Your task to perform on an android device: clear all cookies in the chrome app Image 0: 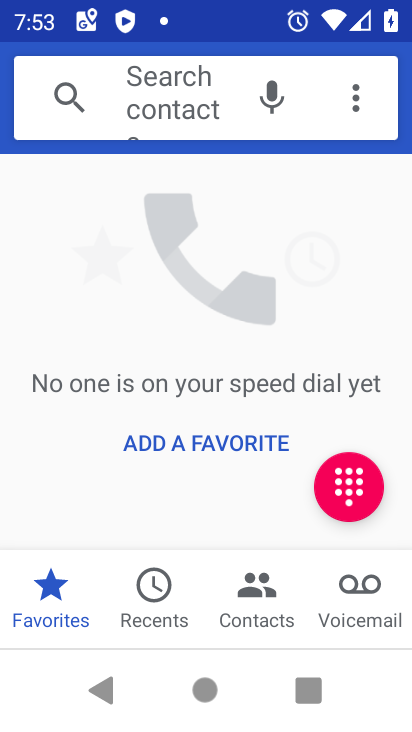
Step 0: press home button
Your task to perform on an android device: clear all cookies in the chrome app Image 1: 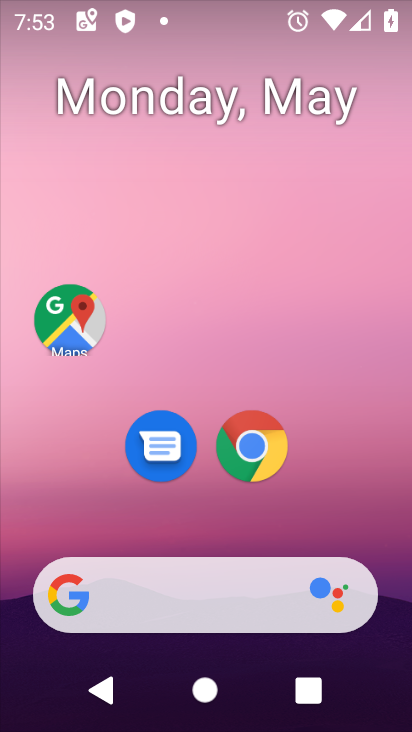
Step 1: click (258, 448)
Your task to perform on an android device: clear all cookies in the chrome app Image 2: 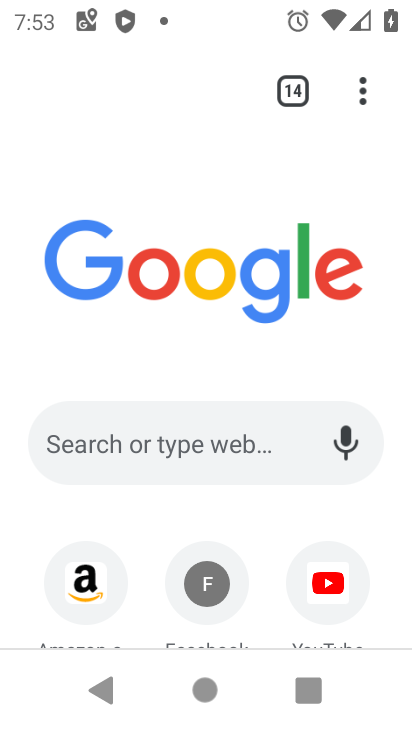
Step 2: click (359, 90)
Your task to perform on an android device: clear all cookies in the chrome app Image 3: 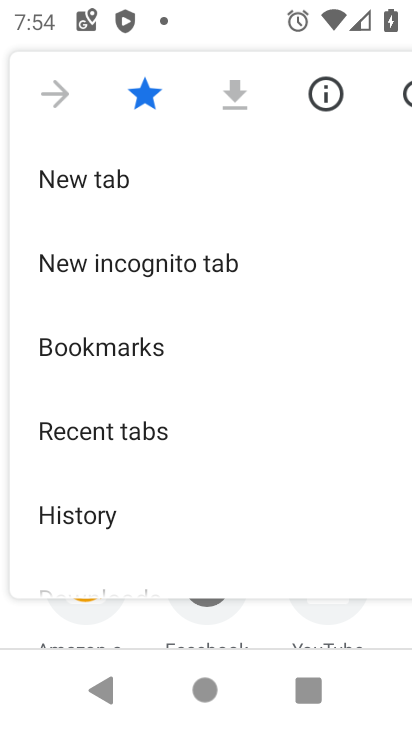
Step 3: drag from (267, 502) to (267, 182)
Your task to perform on an android device: clear all cookies in the chrome app Image 4: 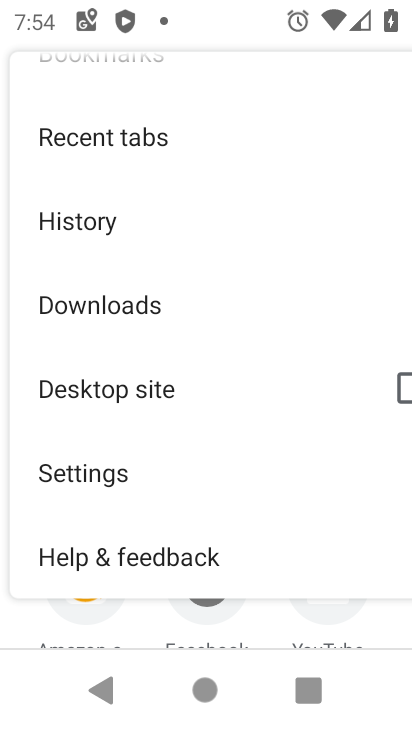
Step 4: click (100, 465)
Your task to perform on an android device: clear all cookies in the chrome app Image 5: 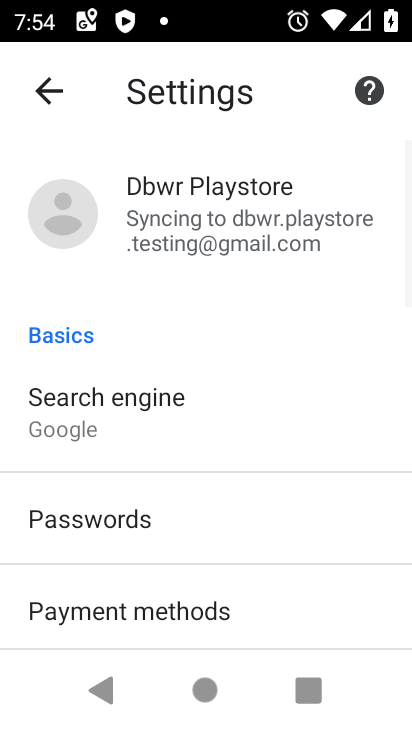
Step 5: drag from (253, 500) to (241, 261)
Your task to perform on an android device: clear all cookies in the chrome app Image 6: 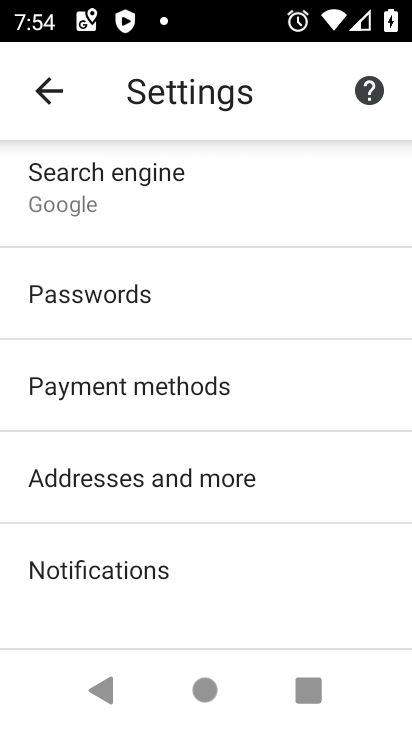
Step 6: drag from (251, 523) to (219, 232)
Your task to perform on an android device: clear all cookies in the chrome app Image 7: 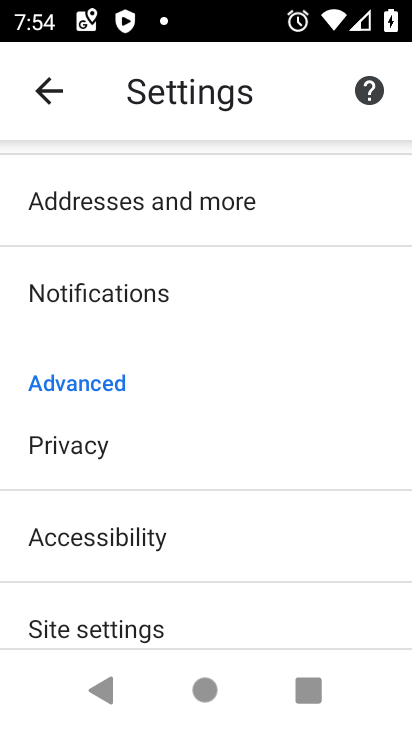
Step 7: drag from (194, 493) to (177, 205)
Your task to perform on an android device: clear all cookies in the chrome app Image 8: 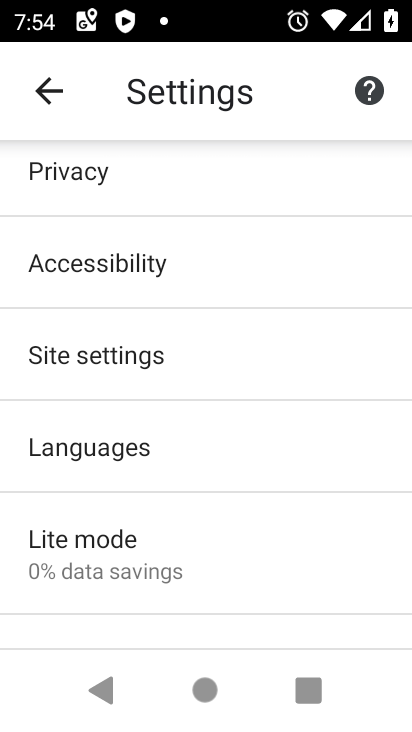
Step 8: click (104, 366)
Your task to perform on an android device: clear all cookies in the chrome app Image 9: 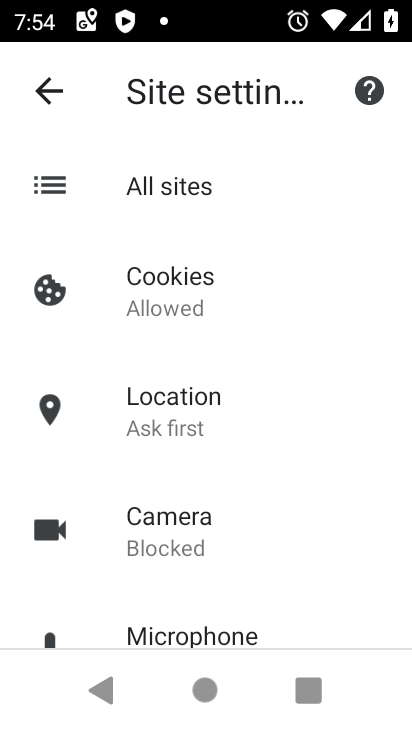
Step 9: click (188, 292)
Your task to perform on an android device: clear all cookies in the chrome app Image 10: 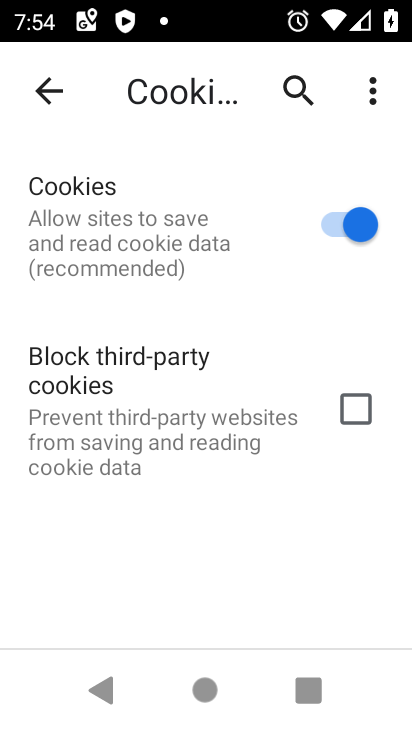
Step 10: task complete